Your task to perform on an android device: Open Android settings Image 0: 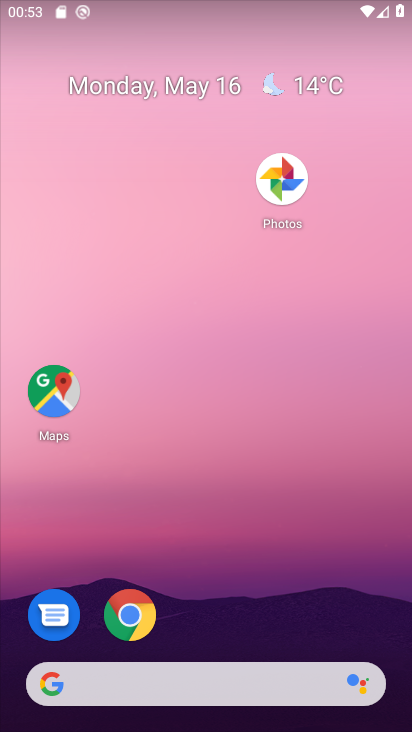
Step 0: drag from (365, 620) to (302, 83)
Your task to perform on an android device: Open Android settings Image 1: 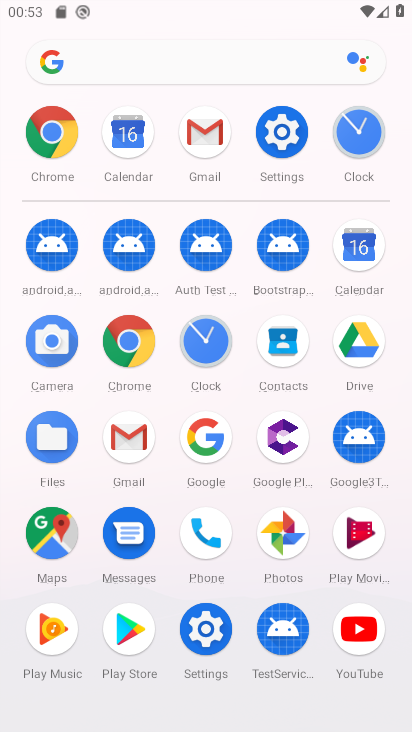
Step 1: click (282, 150)
Your task to perform on an android device: Open Android settings Image 2: 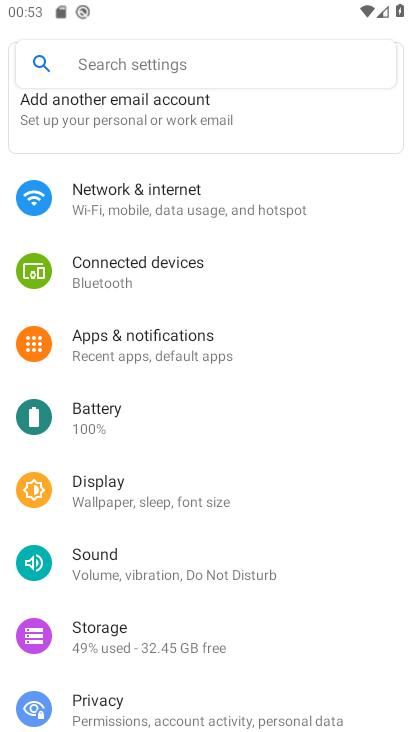
Step 2: drag from (244, 653) to (299, 224)
Your task to perform on an android device: Open Android settings Image 3: 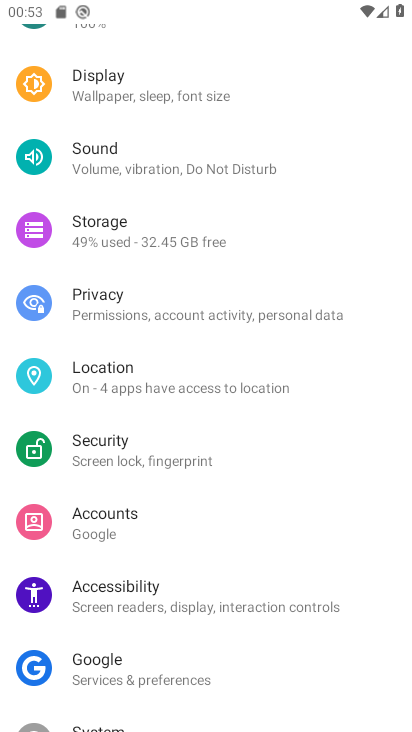
Step 3: drag from (361, 691) to (347, 287)
Your task to perform on an android device: Open Android settings Image 4: 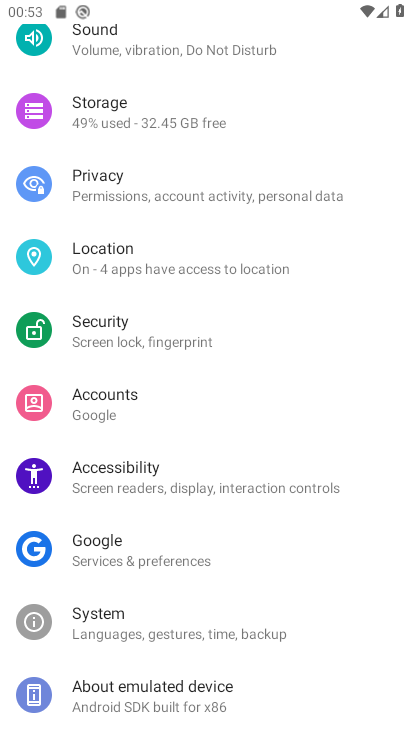
Step 4: click (232, 699)
Your task to perform on an android device: Open Android settings Image 5: 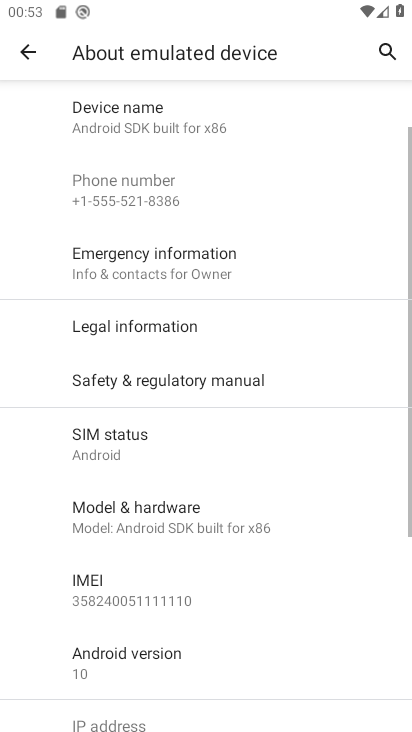
Step 5: drag from (339, 675) to (366, 361)
Your task to perform on an android device: Open Android settings Image 6: 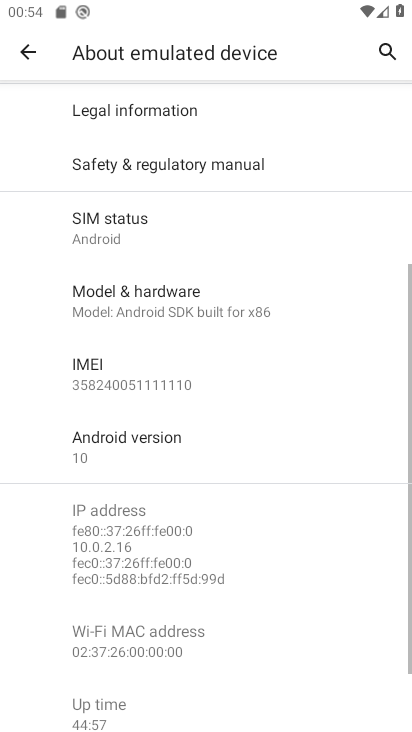
Step 6: click (214, 437)
Your task to perform on an android device: Open Android settings Image 7: 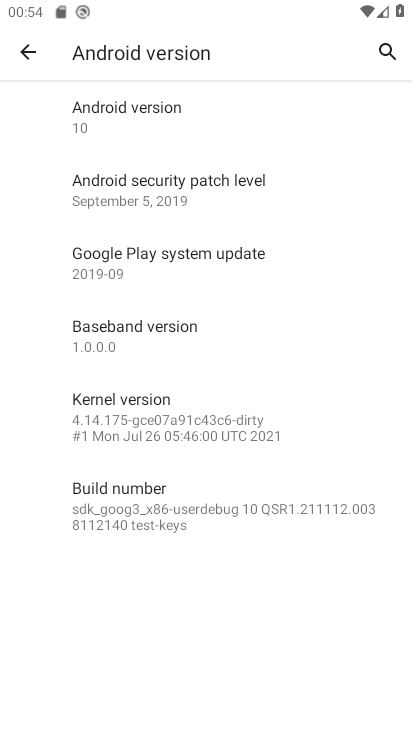
Step 7: task complete